Your task to perform on an android device: Open Android settings Image 0: 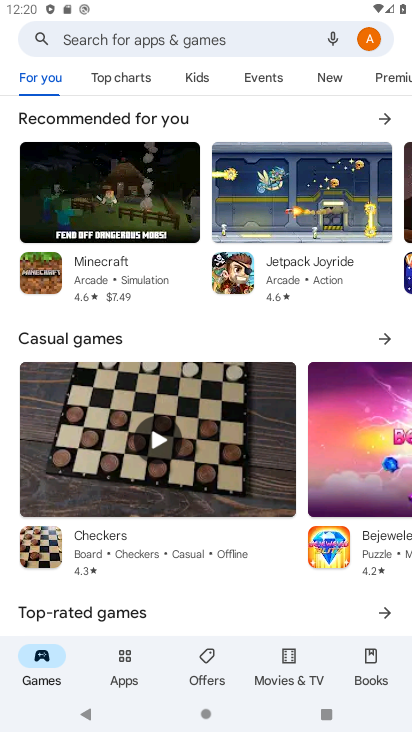
Step 0: press back button
Your task to perform on an android device: Open Android settings Image 1: 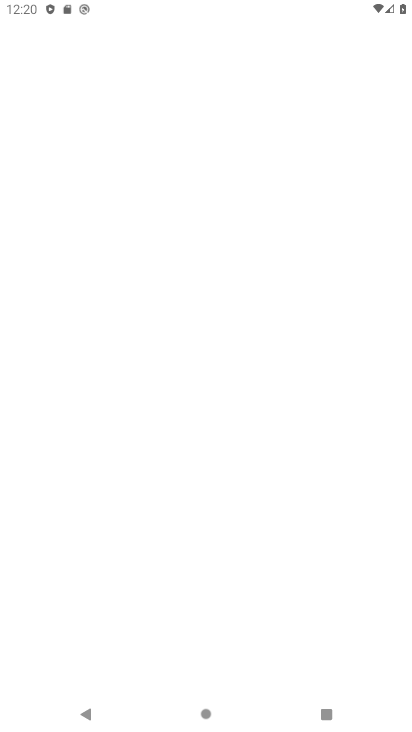
Step 1: press back button
Your task to perform on an android device: Open Android settings Image 2: 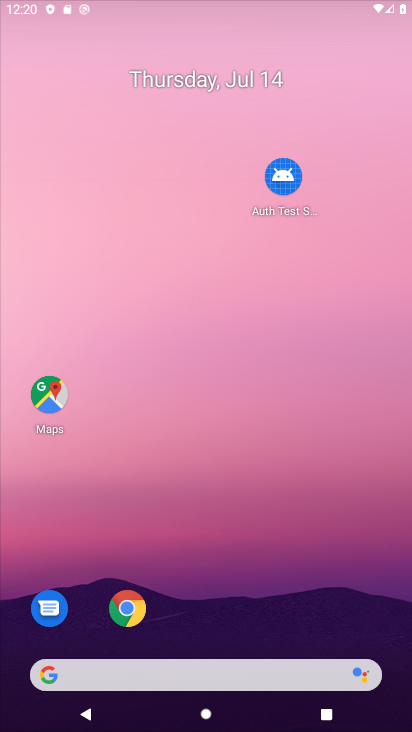
Step 2: press back button
Your task to perform on an android device: Open Android settings Image 3: 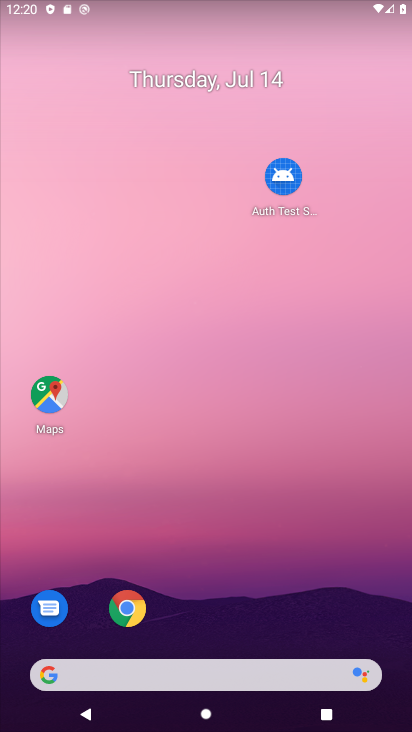
Step 3: press back button
Your task to perform on an android device: Open Android settings Image 4: 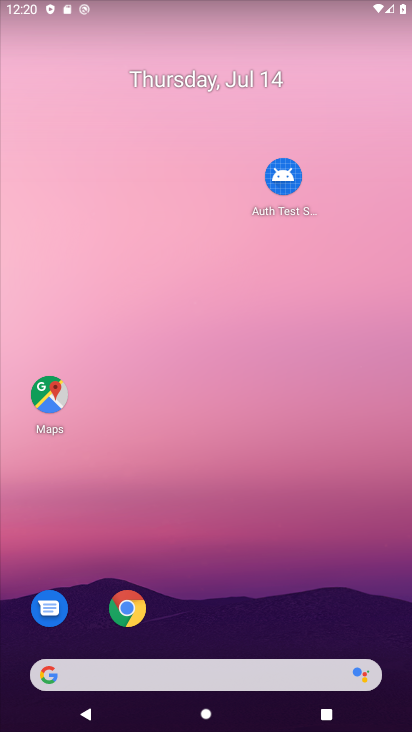
Step 4: press back button
Your task to perform on an android device: Open Android settings Image 5: 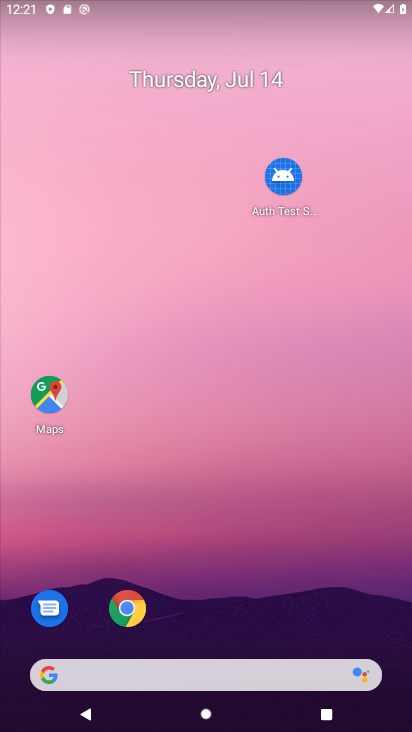
Step 5: press back button
Your task to perform on an android device: Open Android settings Image 6: 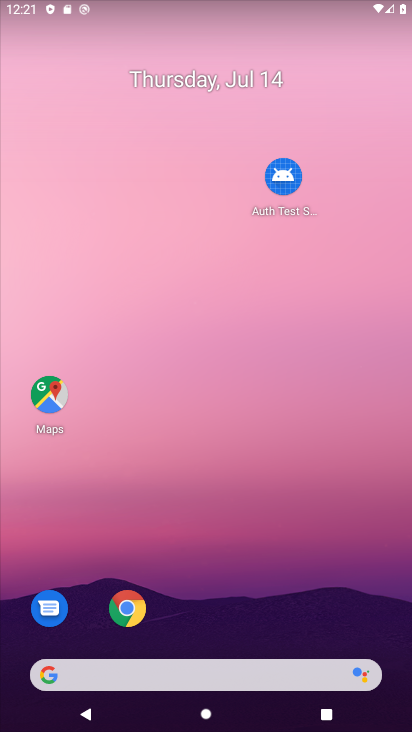
Step 6: press back button
Your task to perform on an android device: Open Android settings Image 7: 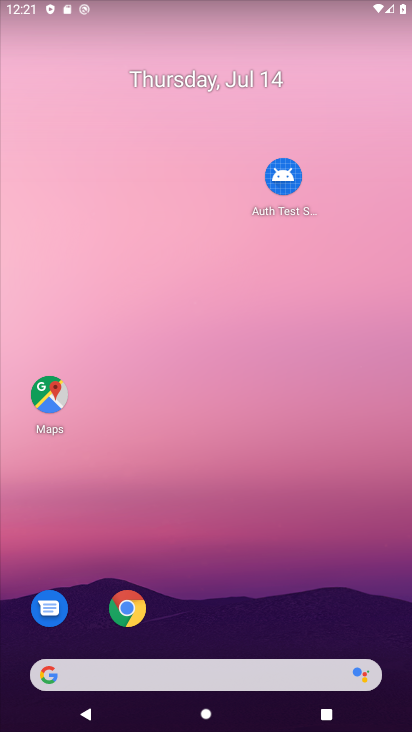
Step 7: click (155, 35)
Your task to perform on an android device: Open Android settings Image 8: 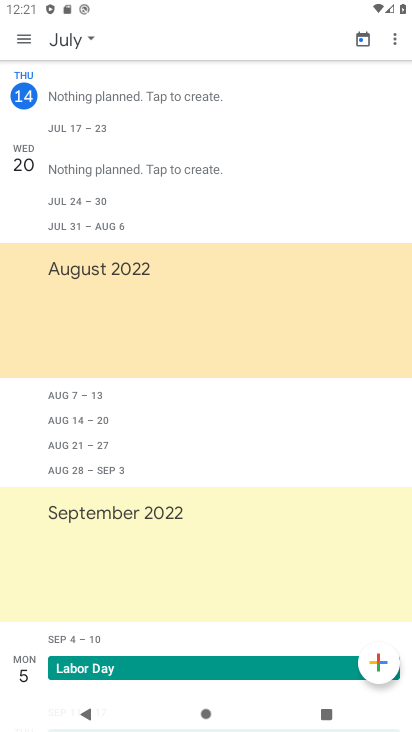
Step 8: drag from (176, 311) to (406, 398)
Your task to perform on an android device: Open Android settings Image 9: 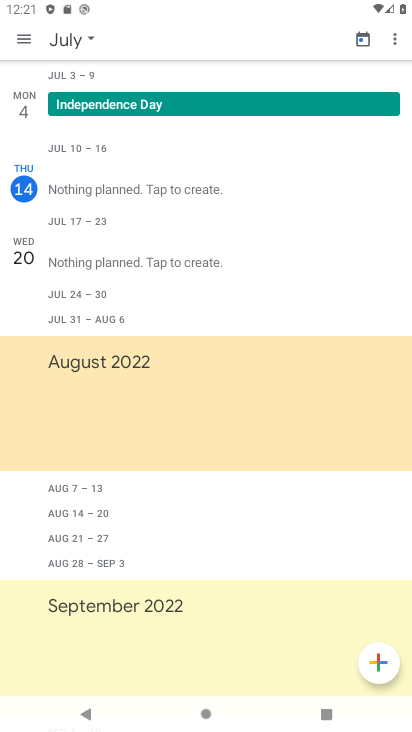
Step 9: press back button
Your task to perform on an android device: Open Android settings Image 10: 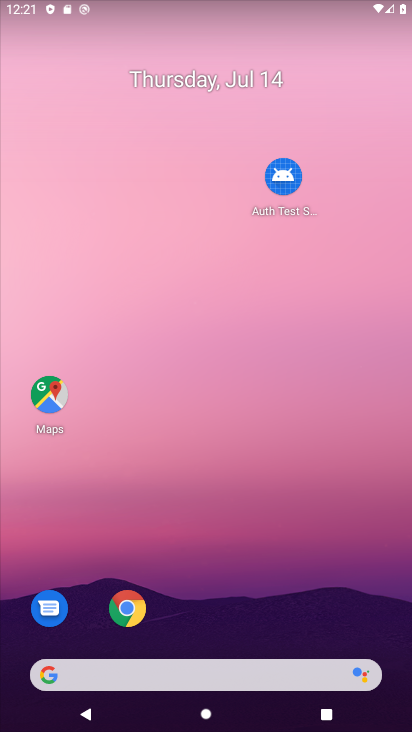
Step 10: press home button
Your task to perform on an android device: Open Android settings Image 11: 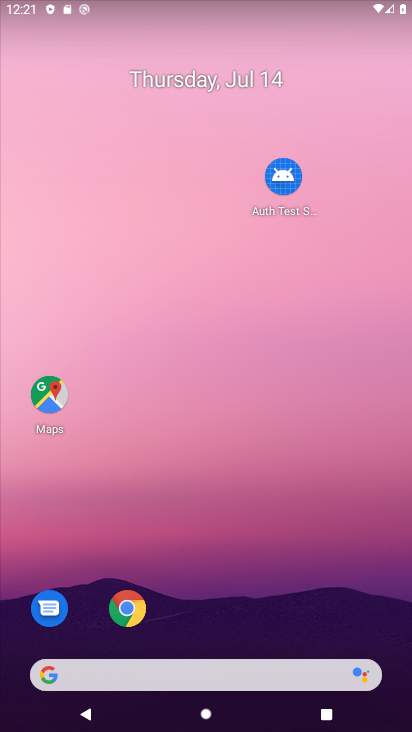
Step 11: drag from (280, 686) to (193, 193)
Your task to perform on an android device: Open Android settings Image 12: 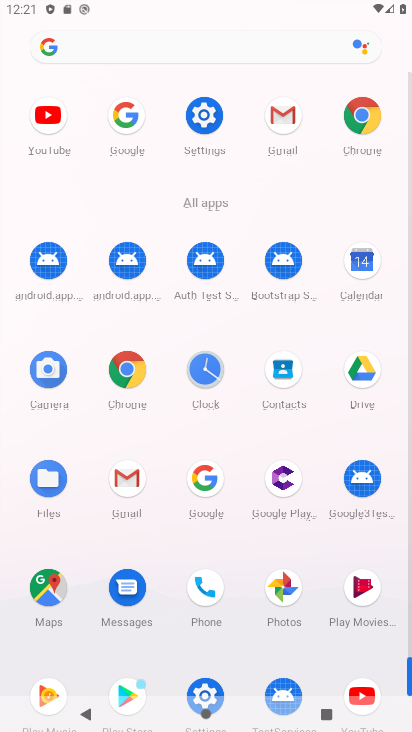
Step 12: click (216, 285)
Your task to perform on an android device: Open Android settings Image 13: 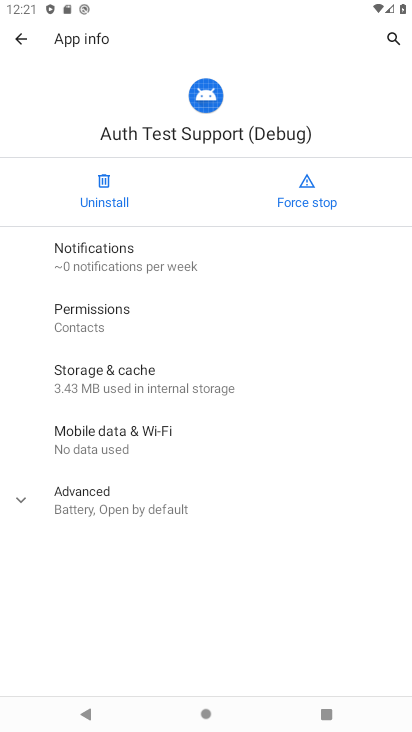
Step 13: drag from (91, 316) to (77, 220)
Your task to perform on an android device: Open Android settings Image 14: 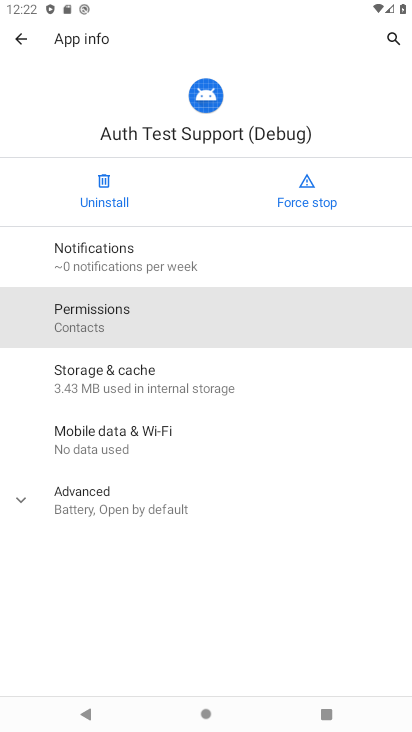
Step 14: click (58, 68)
Your task to perform on an android device: Open Android settings Image 15: 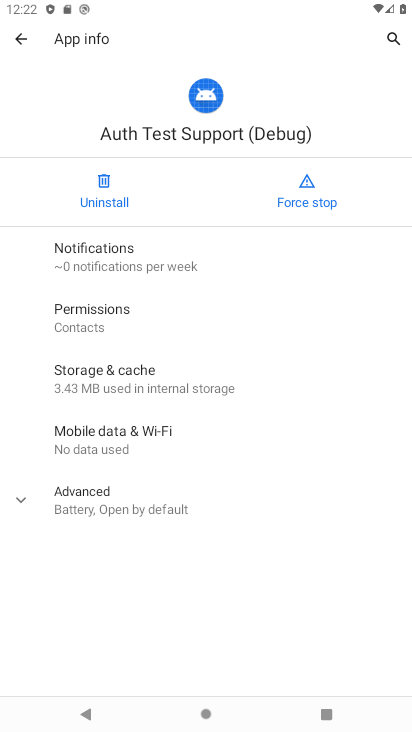
Step 15: task complete